Your task to perform on an android device: search for starred emails in the gmail app Image 0: 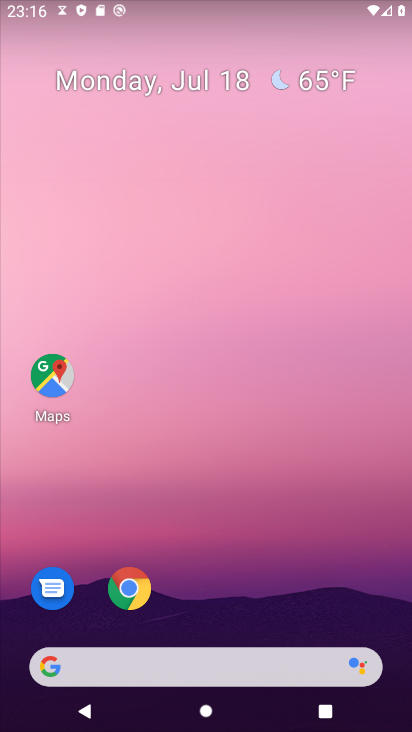
Step 0: press home button
Your task to perform on an android device: search for starred emails in the gmail app Image 1: 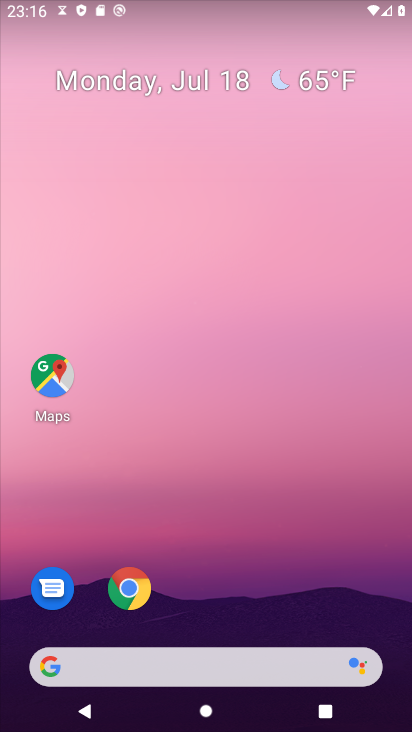
Step 1: drag from (278, 581) to (279, 66)
Your task to perform on an android device: search for starred emails in the gmail app Image 2: 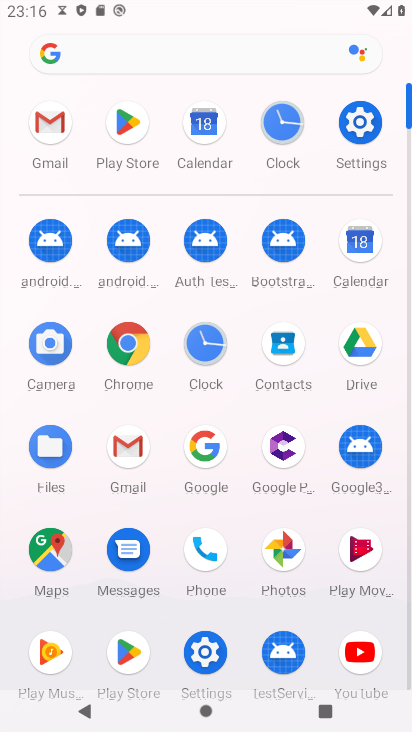
Step 2: click (48, 125)
Your task to perform on an android device: search for starred emails in the gmail app Image 3: 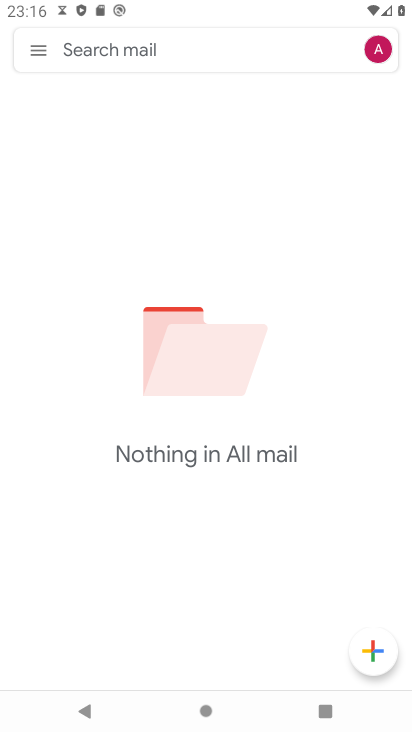
Step 3: click (36, 48)
Your task to perform on an android device: search for starred emails in the gmail app Image 4: 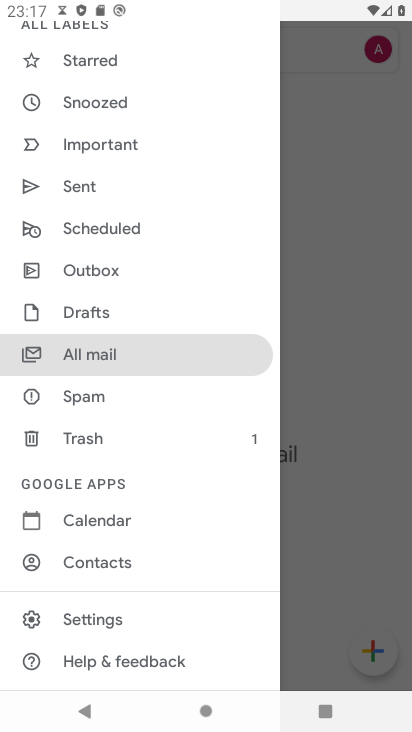
Step 4: click (103, 55)
Your task to perform on an android device: search for starred emails in the gmail app Image 5: 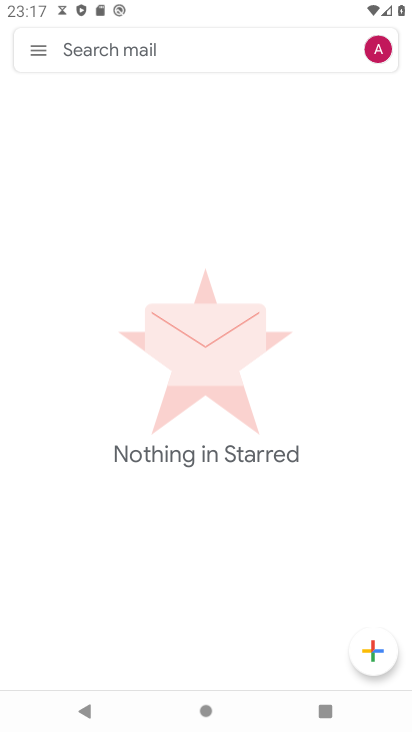
Step 5: task complete